Your task to perform on an android device: Go to battery settings Image 0: 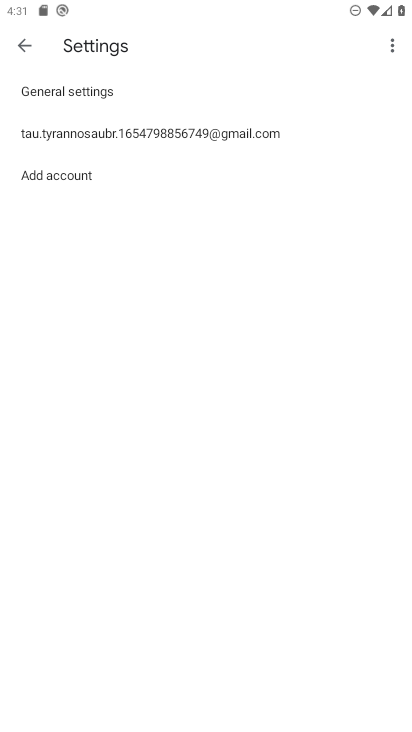
Step 0: press home button
Your task to perform on an android device: Go to battery settings Image 1: 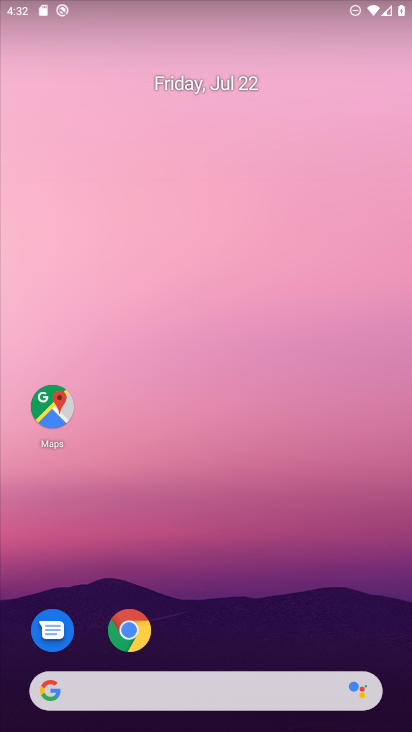
Step 1: drag from (249, 593) to (230, 8)
Your task to perform on an android device: Go to battery settings Image 2: 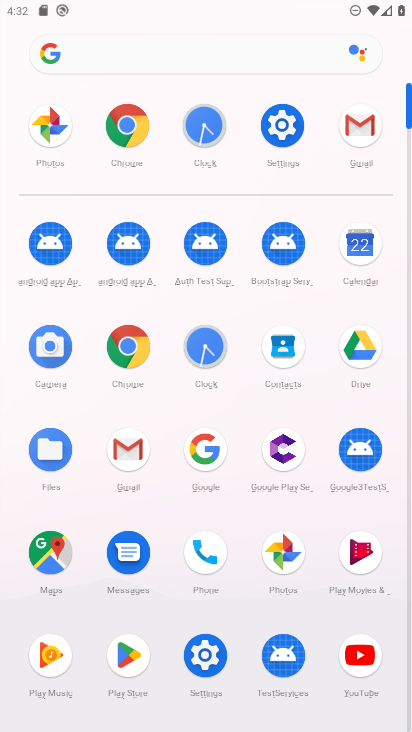
Step 2: click (210, 657)
Your task to perform on an android device: Go to battery settings Image 3: 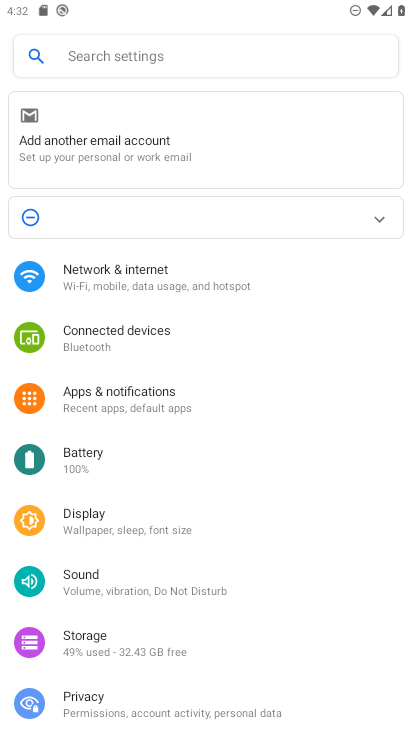
Step 3: click (93, 453)
Your task to perform on an android device: Go to battery settings Image 4: 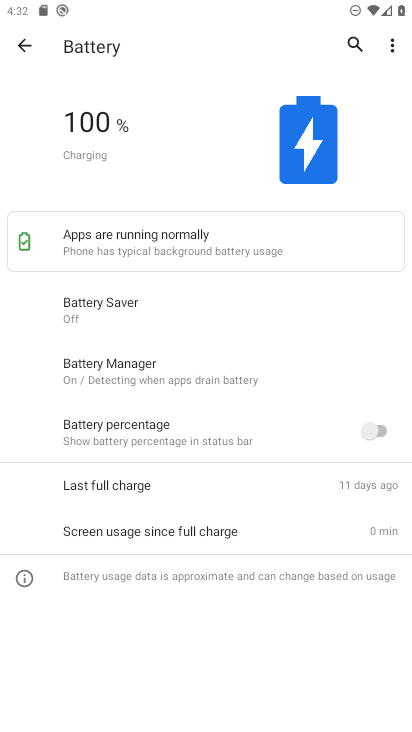
Step 4: task complete